Your task to perform on an android device: Search for pizza restaurants on Maps Image 0: 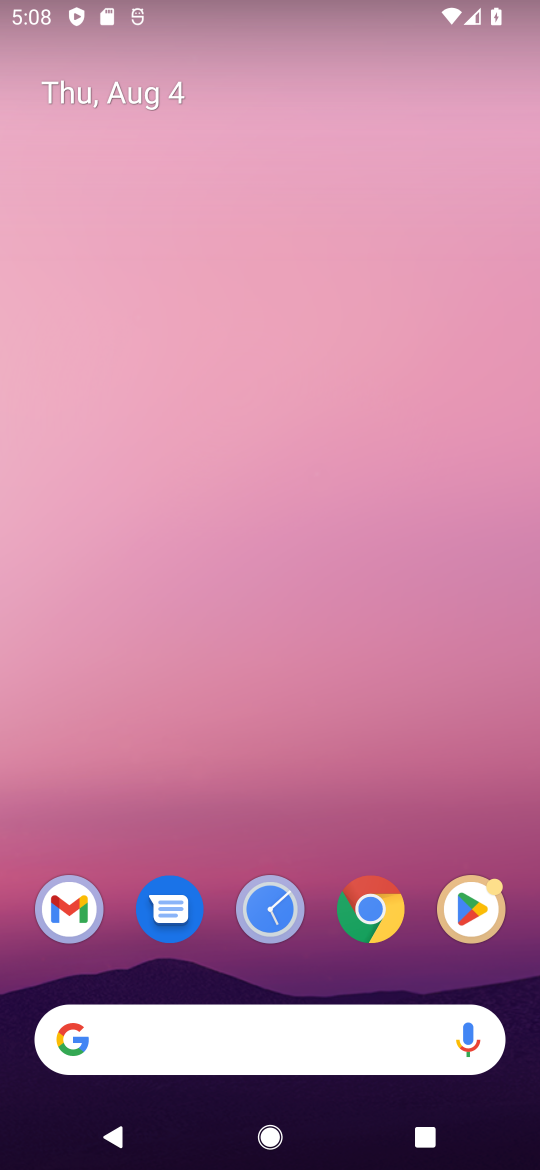
Step 0: drag from (231, 1059) to (278, 111)
Your task to perform on an android device: Search for pizza restaurants on Maps Image 1: 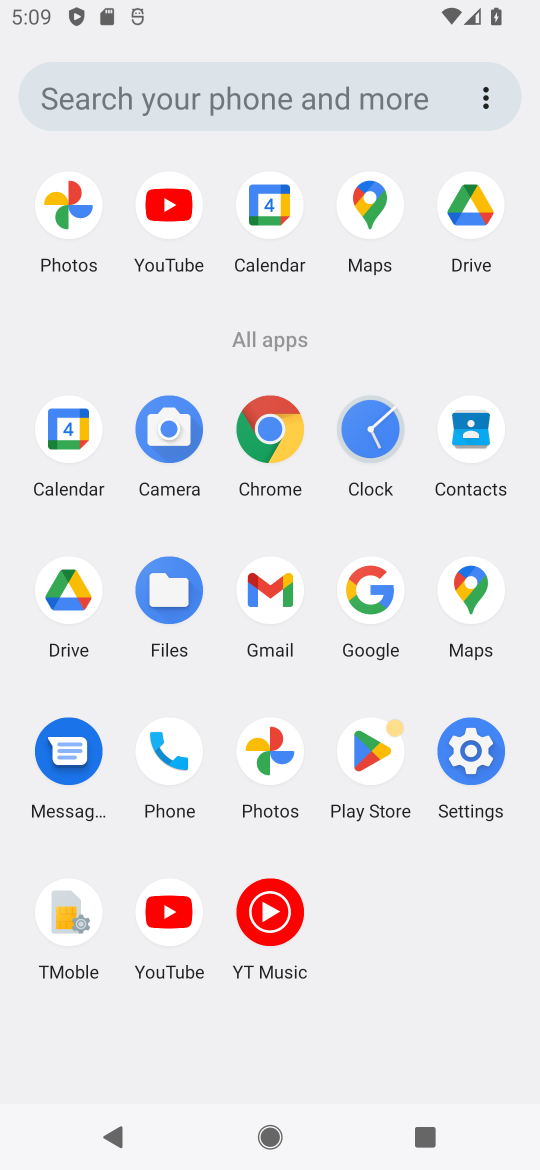
Step 1: click (373, 206)
Your task to perform on an android device: Search for pizza restaurants on Maps Image 2: 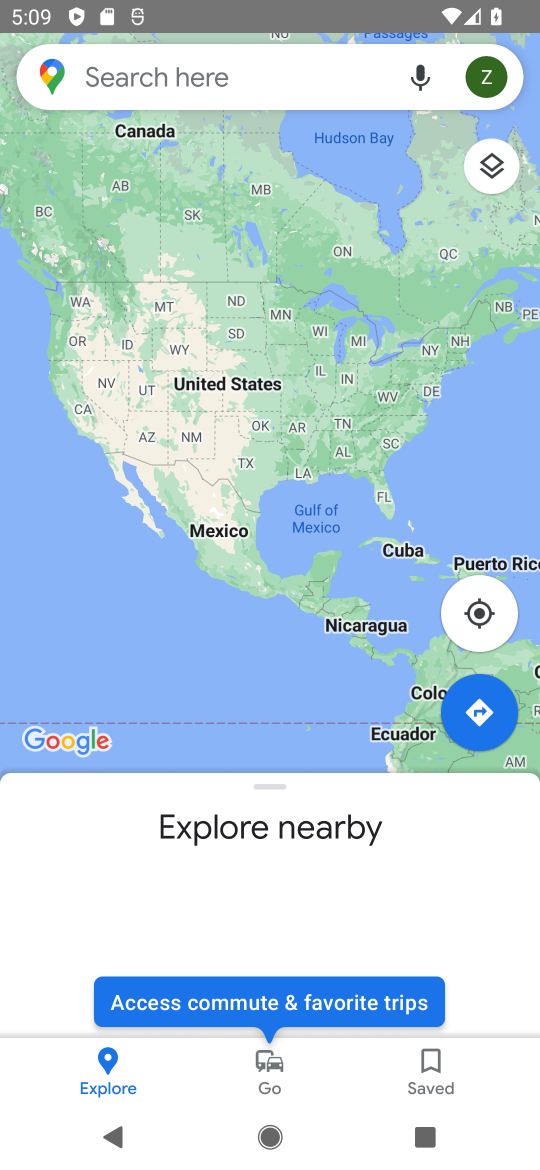
Step 2: click (319, 68)
Your task to perform on an android device: Search for pizza restaurants on Maps Image 3: 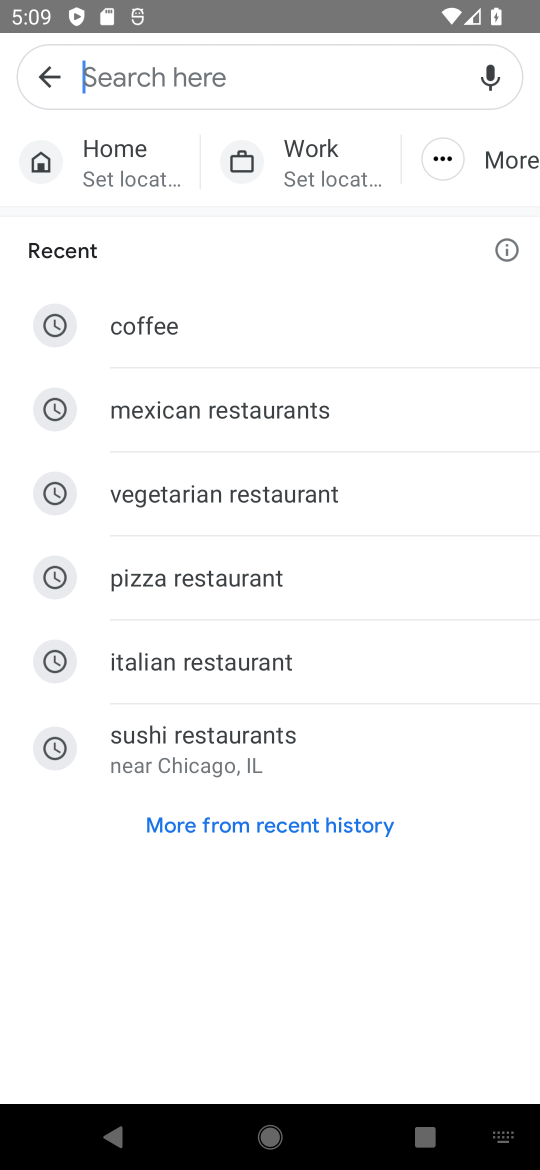
Step 3: type "pizza restaurants"
Your task to perform on an android device: Search for pizza restaurants on Maps Image 4: 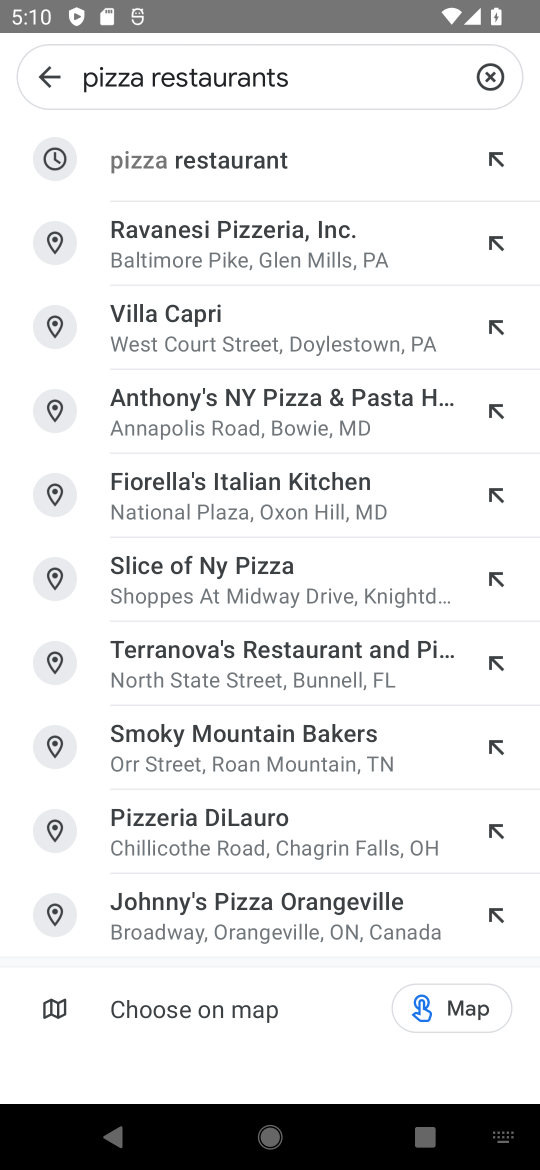
Step 4: click (194, 171)
Your task to perform on an android device: Search for pizza restaurants on Maps Image 5: 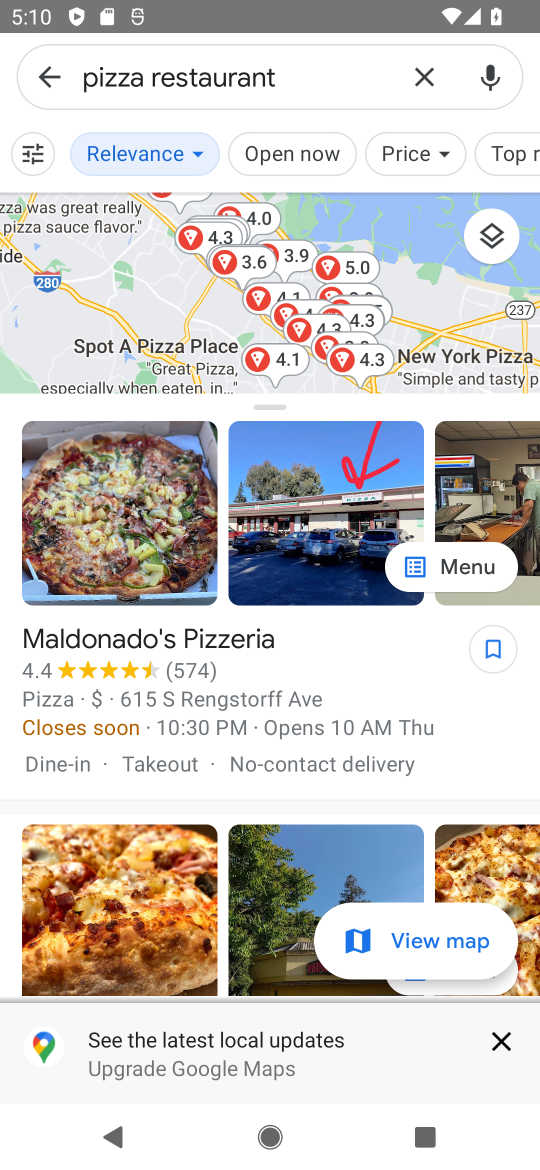
Step 5: task complete